Your task to perform on an android device: open app "Truecaller" (install if not already installed) Image 0: 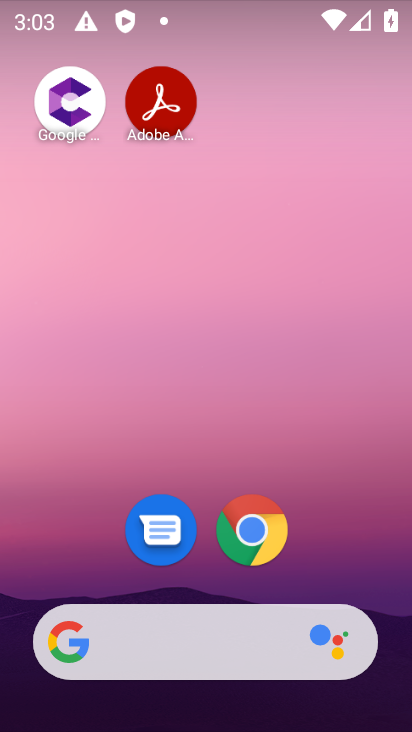
Step 0: drag from (319, 586) to (267, 0)
Your task to perform on an android device: open app "Truecaller" (install if not already installed) Image 1: 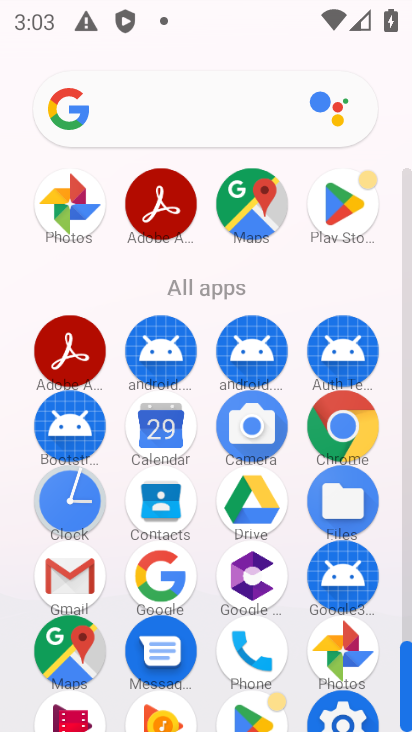
Step 1: click (340, 205)
Your task to perform on an android device: open app "Truecaller" (install if not already installed) Image 2: 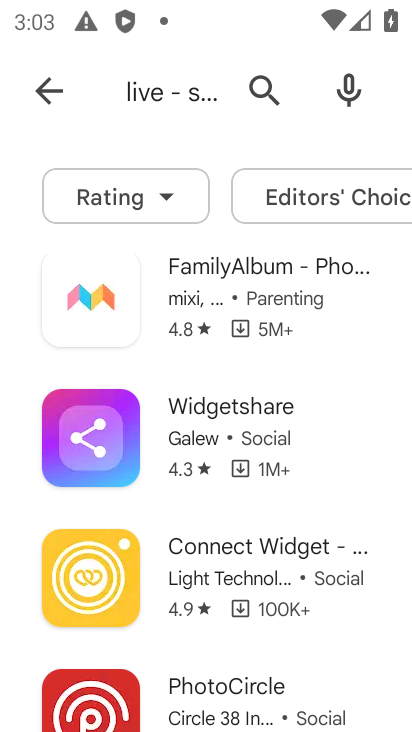
Step 2: click (258, 80)
Your task to perform on an android device: open app "Truecaller" (install if not already installed) Image 3: 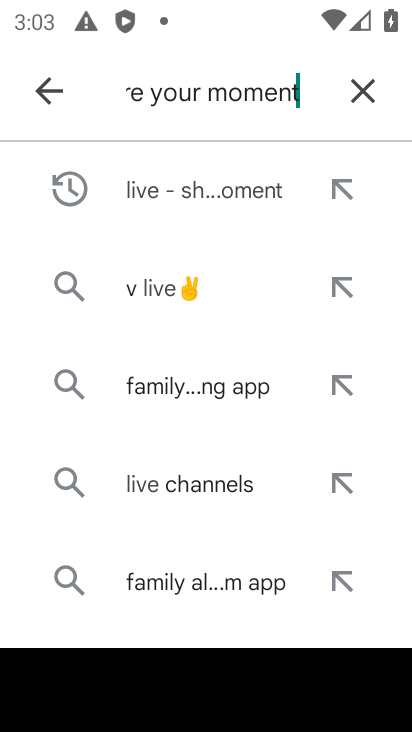
Step 3: click (353, 101)
Your task to perform on an android device: open app "Truecaller" (install if not already installed) Image 4: 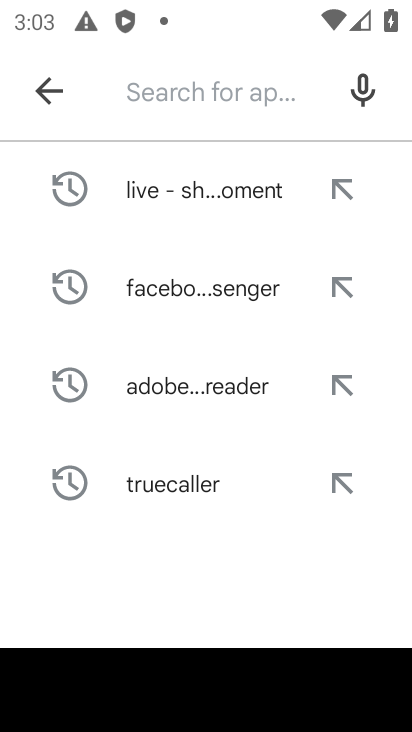
Step 4: type "Truecaller"
Your task to perform on an android device: open app "Truecaller" (install if not already installed) Image 5: 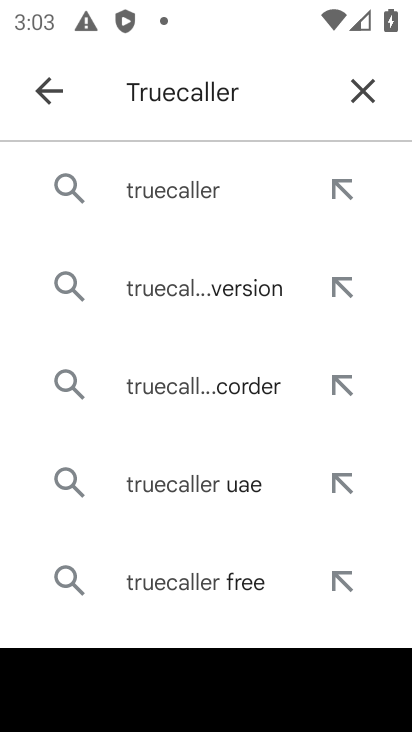
Step 5: click (164, 190)
Your task to perform on an android device: open app "Truecaller" (install if not already installed) Image 6: 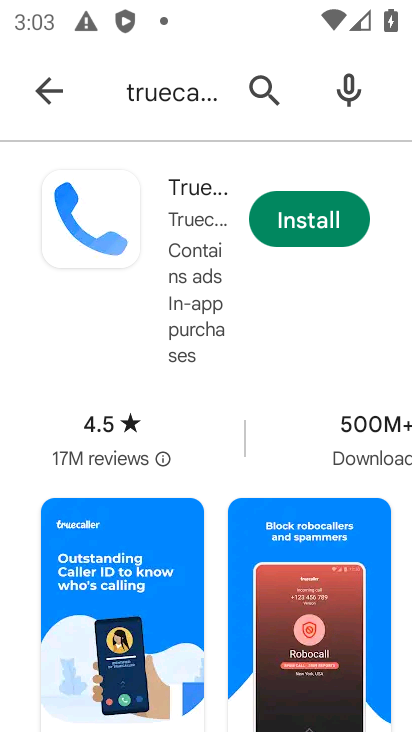
Step 6: click (292, 228)
Your task to perform on an android device: open app "Truecaller" (install if not already installed) Image 7: 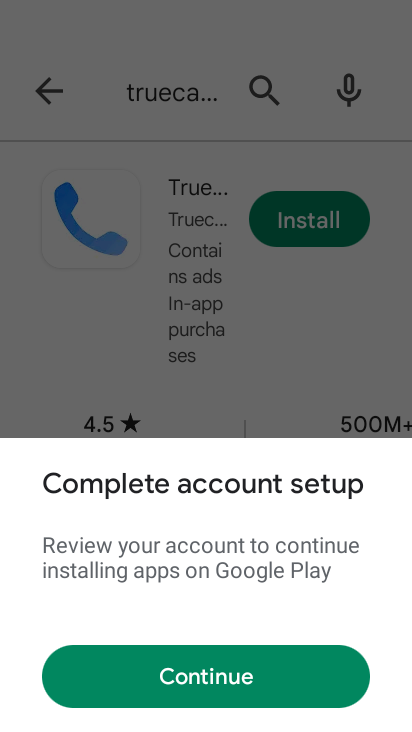
Step 7: click (215, 692)
Your task to perform on an android device: open app "Truecaller" (install if not already installed) Image 8: 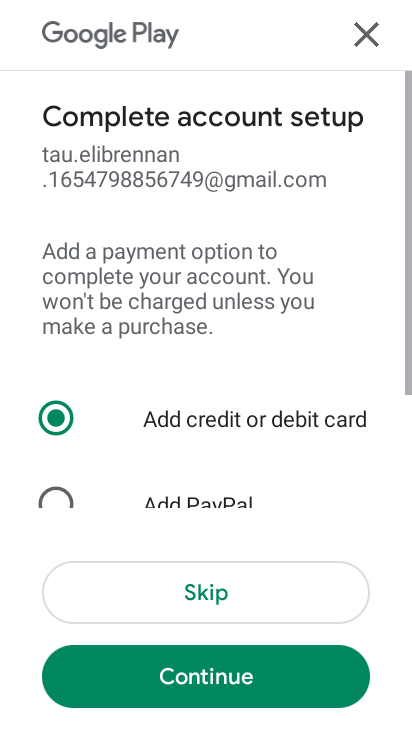
Step 8: click (169, 592)
Your task to perform on an android device: open app "Truecaller" (install if not already installed) Image 9: 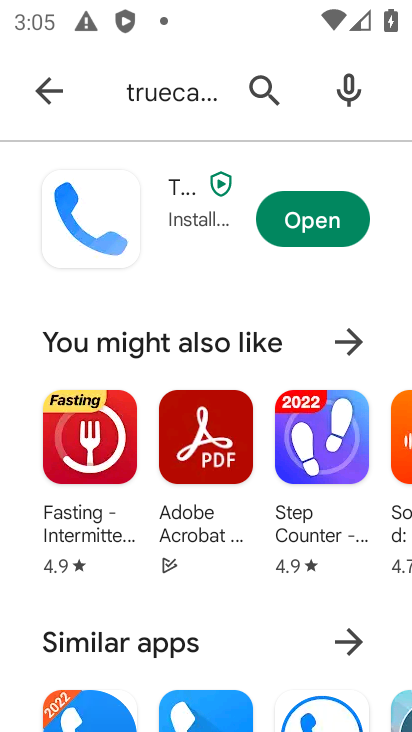
Step 9: click (314, 229)
Your task to perform on an android device: open app "Truecaller" (install if not already installed) Image 10: 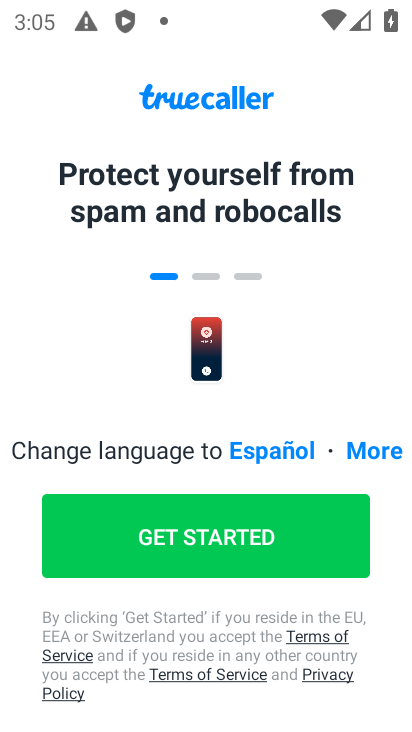
Step 10: press home button
Your task to perform on an android device: open app "Truecaller" (install if not already installed) Image 11: 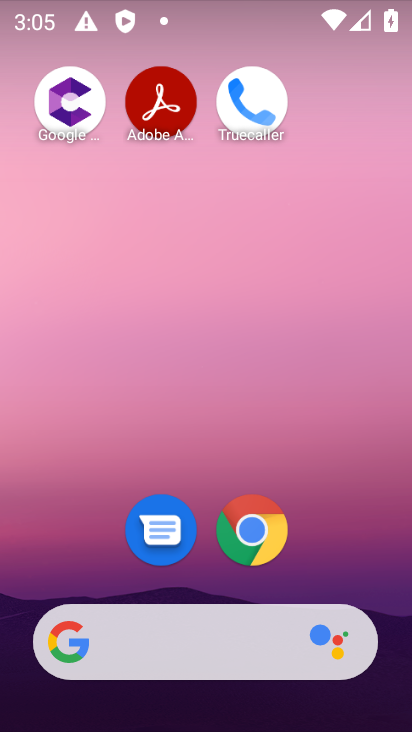
Step 11: drag from (319, 580) to (316, 108)
Your task to perform on an android device: open app "Truecaller" (install if not already installed) Image 12: 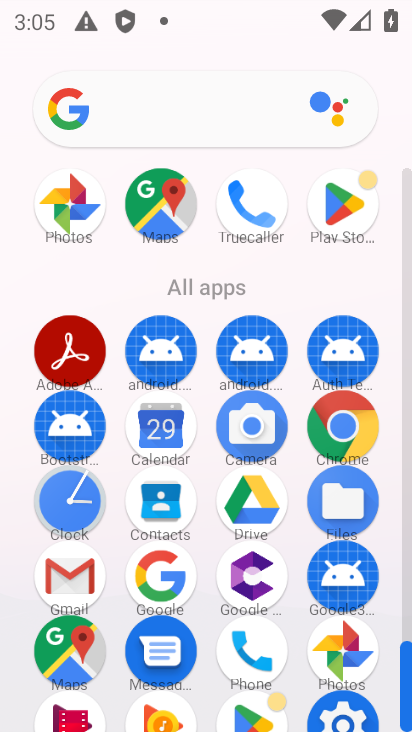
Step 12: click (248, 196)
Your task to perform on an android device: open app "Truecaller" (install if not already installed) Image 13: 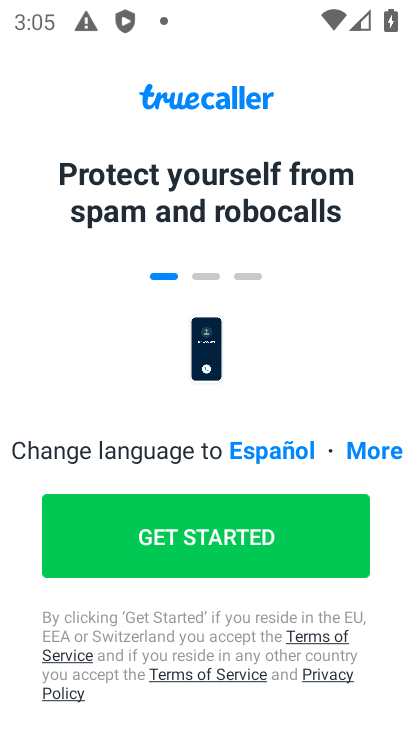
Step 13: task complete